Your task to perform on an android device: Toggle the flashlight Image 0: 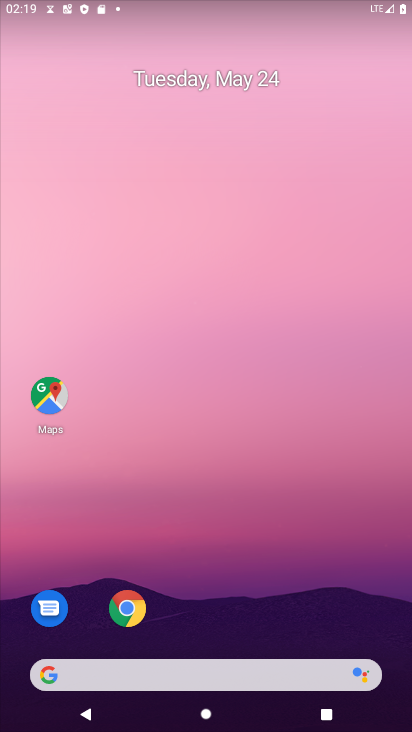
Step 0: drag from (214, 632) to (250, 193)
Your task to perform on an android device: Toggle the flashlight Image 1: 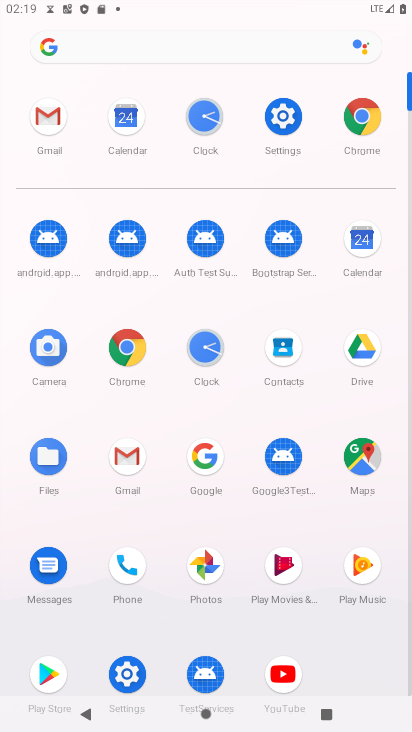
Step 1: drag from (257, 6) to (322, 401)
Your task to perform on an android device: Toggle the flashlight Image 2: 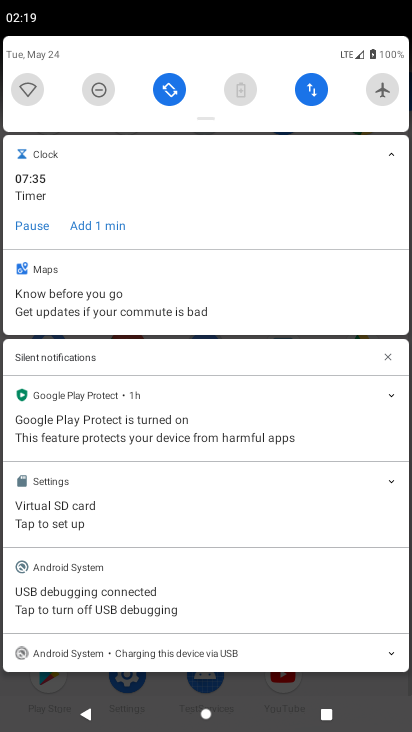
Step 2: drag from (274, 105) to (294, 388)
Your task to perform on an android device: Toggle the flashlight Image 3: 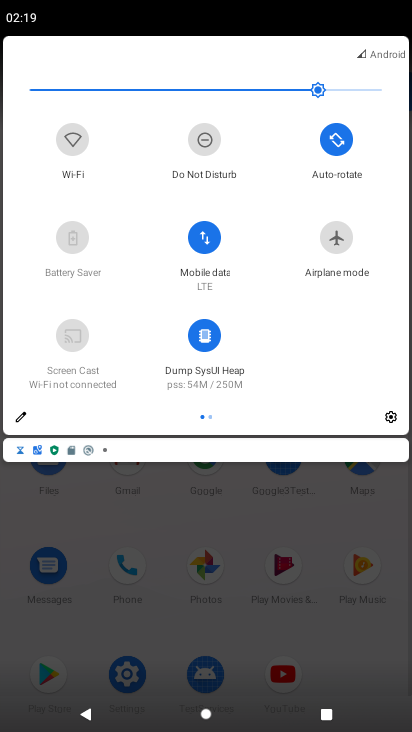
Step 3: click (22, 415)
Your task to perform on an android device: Toggle the flashlight Image 4: 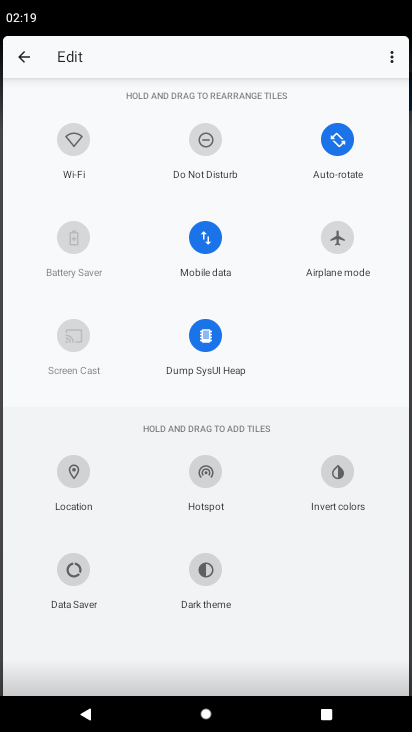
Step 4: task complete